Your task to perform on an android device: find snoozed emails in the gmail app Image 0: 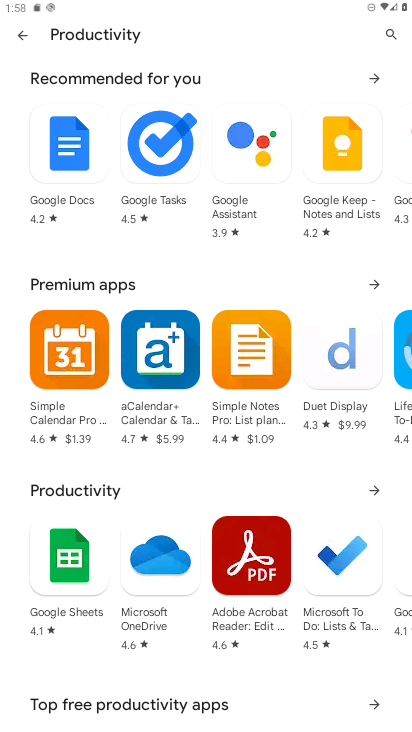
Step 0: press home button
Your task to perform on an android device: find snoozed emails in the gmail app Image 1: 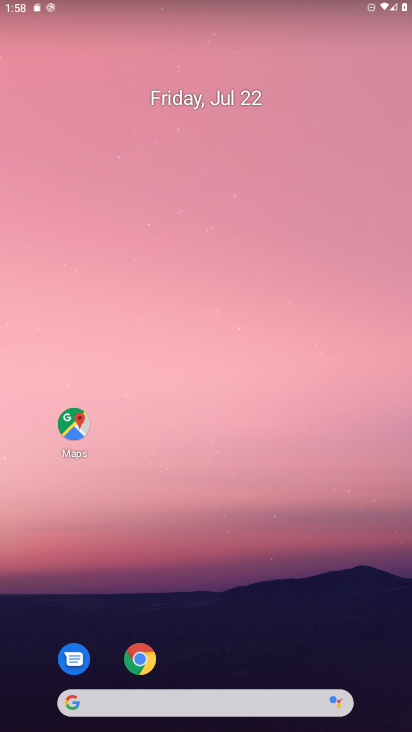
Step 1: drag from (192, 704) to (183, 155)
Your task to perform on an android device: find snoozed emails in the gmail app Image 2: 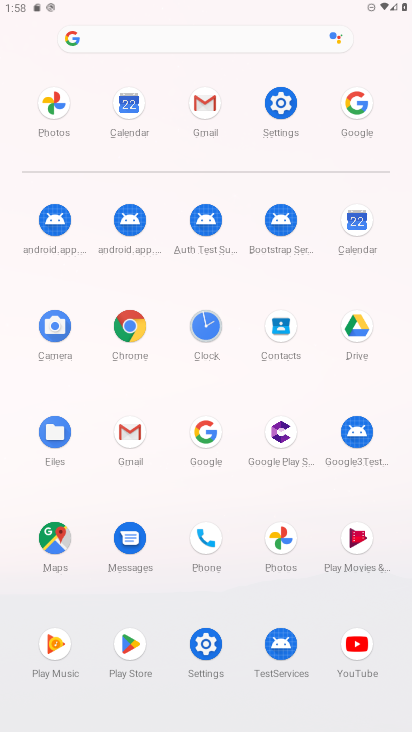
Step 2: click (204, 98)
Your task to perform on an android device: find snoozed emails in the gmail app Image 3: 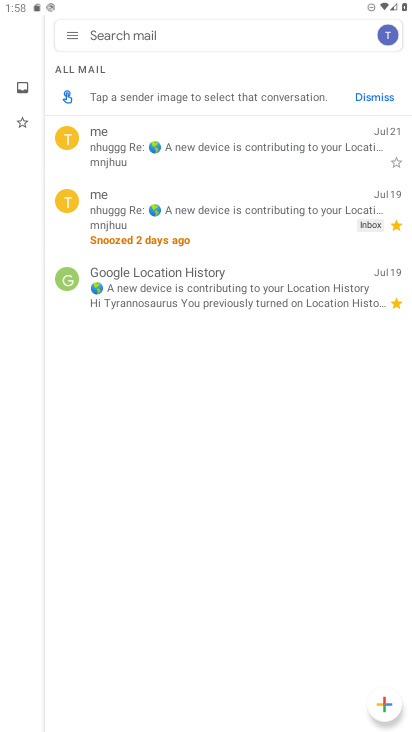
Step 3: click (122, 211)
Your task to perform on an android device: find snoozed emails in the gmail app Image 4: 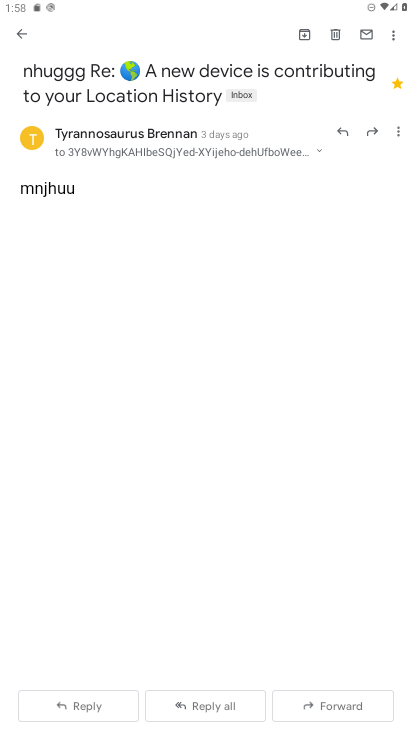
Step 4: task complete